Your task to perform on an android device: delete the emails in spam in the gmail app Image 0: 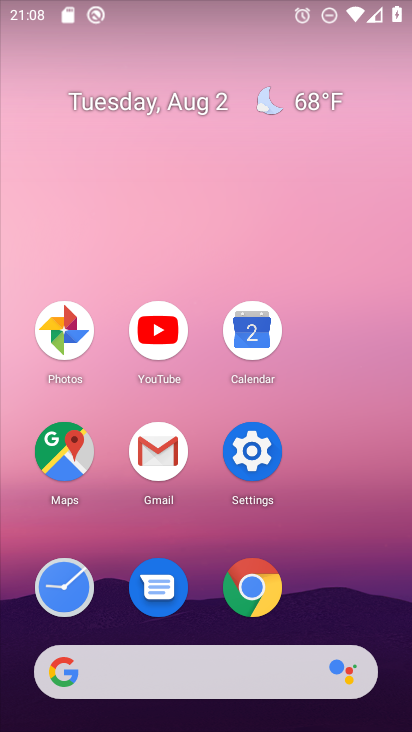
Step 0: click (161, 451)
Your task to perform on an android device: delete the emails in spam in the gmail app Image 1: 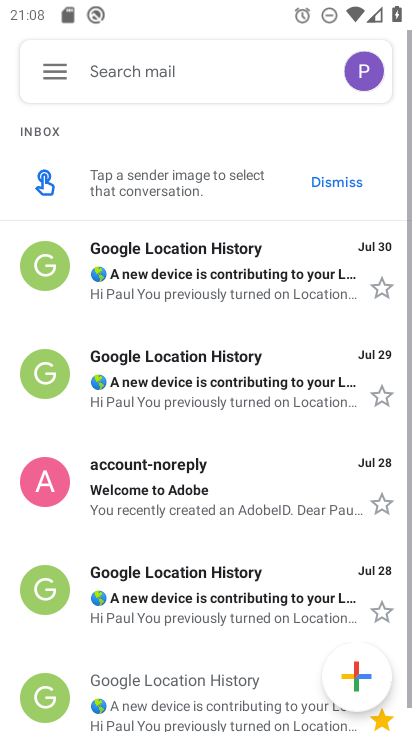
Step 1: click (48, 72)
Your task to perform on an android device: delete the emails in spam in the gmail app Image 2: 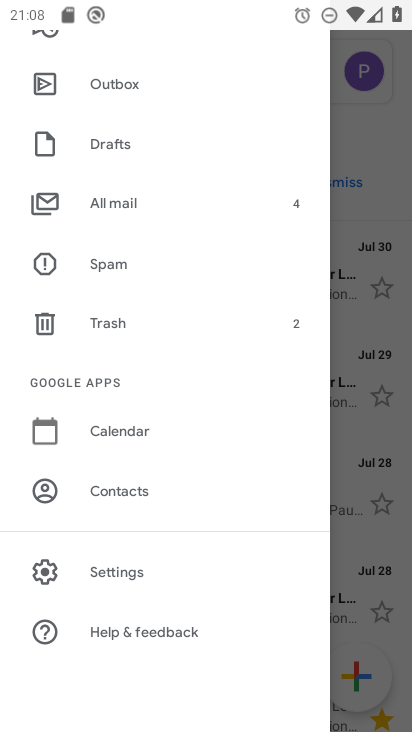
Step 2: click (119, 266)
Your task to perform on an android device: delete the emails in spam in the gmail app Image 3: 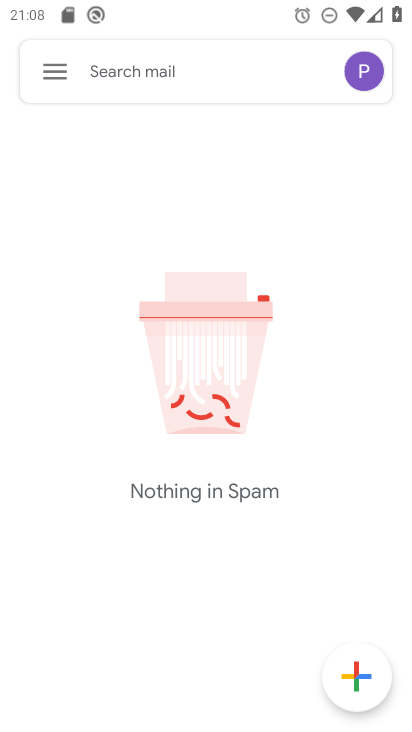
Step 3: task complete